Your task to perform on an android device: Go to Android settings Image 0: 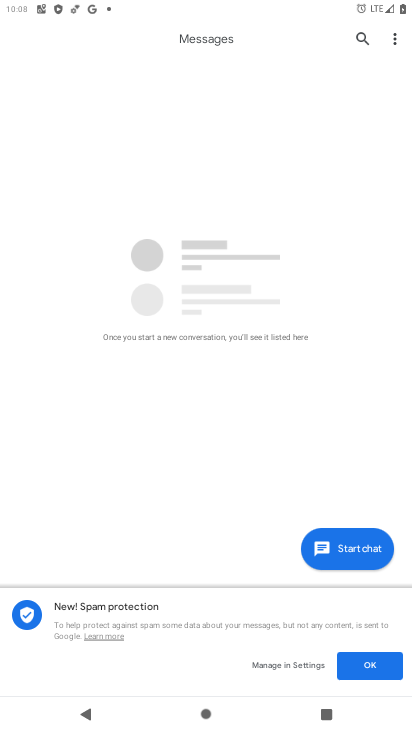
Step 0: press home button
Your task to perform on an android device: Go to Android settings Image 1: 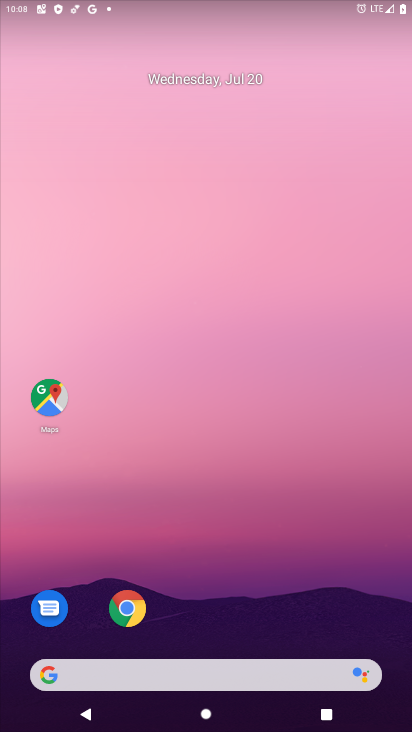
Step 1: drag from (218, 634) to (172, 5)
Your task to perform on an android device: Go to Android settings Image 2: 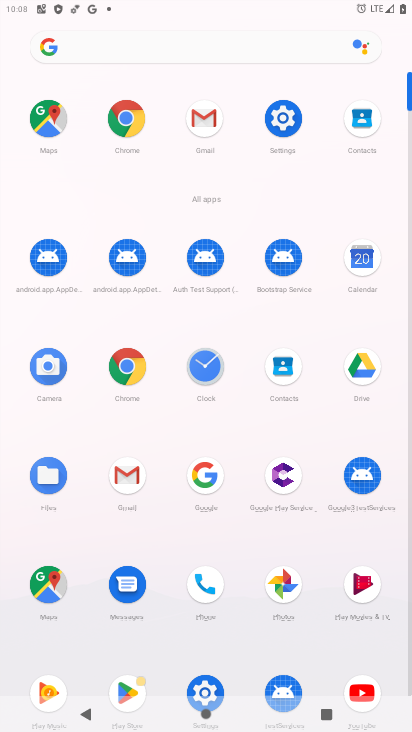
Step 2: click (279, 115)
Your task to perform on an android device: Go to Android settings Image 3: 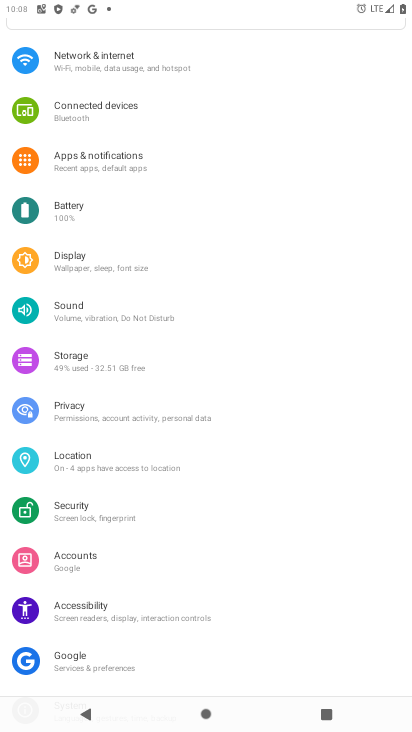
Step 3: drag from (144, 656) to (154, 58)
Your task to perform on an android device: Go to Android settings Image 4: 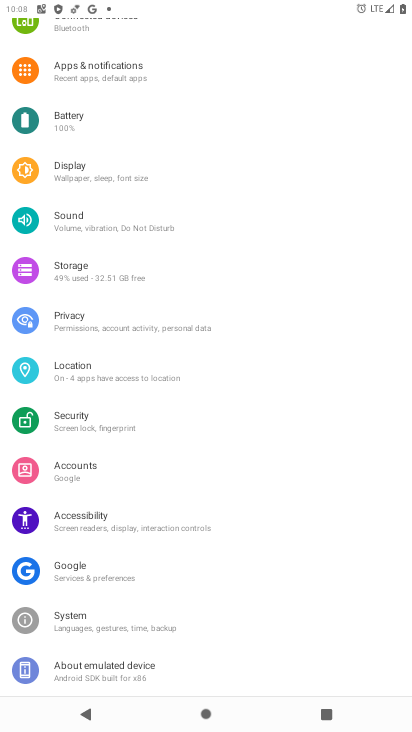
Step 4: click (139, 664)
Your task to perform on an android device: Go to Android settings Image 5: 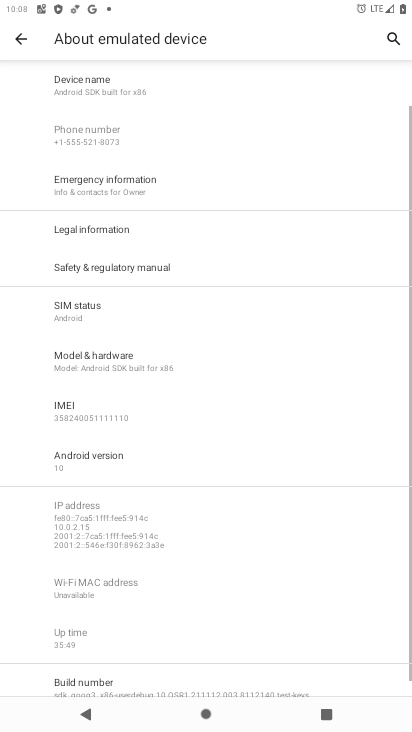
Step 5: click (107, 458)
Your task to perform on an android device: Go to Android settings Image 6: 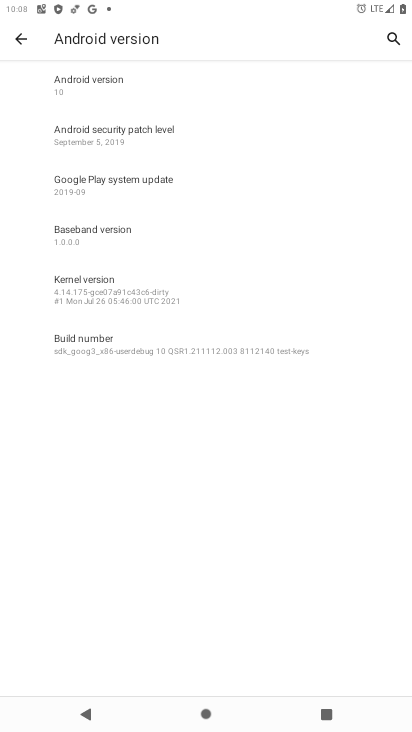
Step 6: task complete